Your task to perform on an android device: search for starred emails in the gmail app Image 0: 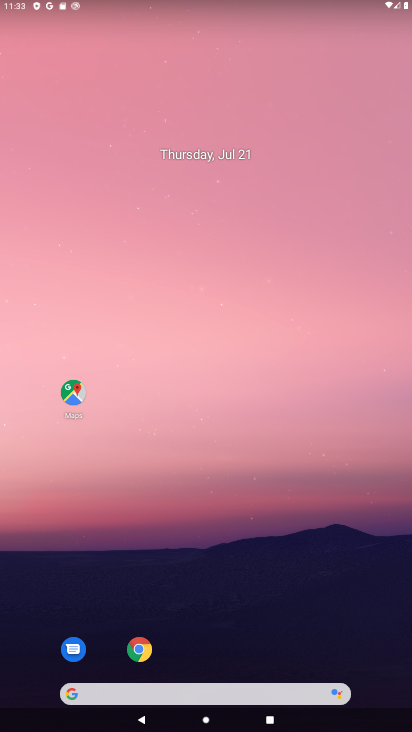
Step 0: drag from (275, 586) to (87, 111)
Your task to perform on an android device: search for starred emails in the gmail app Image 1: 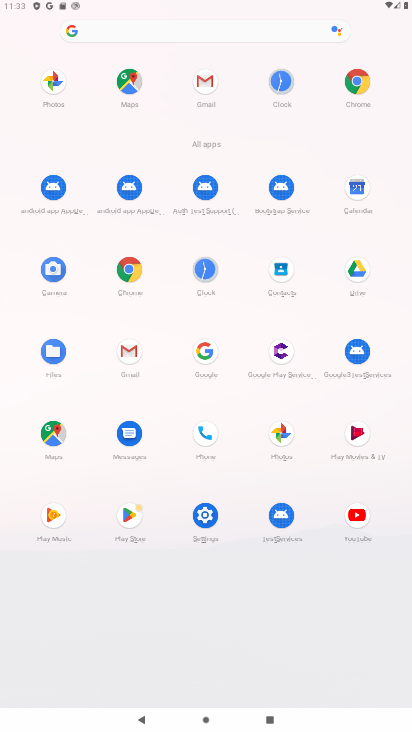
Step 1: click (214, 77)
Your task to perform on an android device: search for starred emails in the gmail app Image 2: 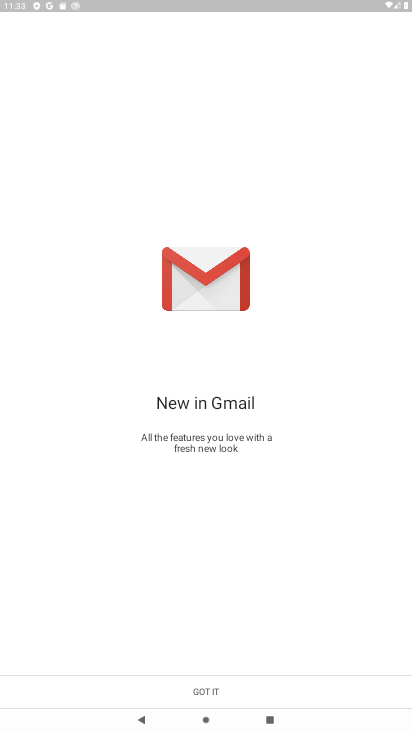
Step 2: click (243, 680)
Your task to perform on an android device: search for starred emails in the gmail app Image 3: 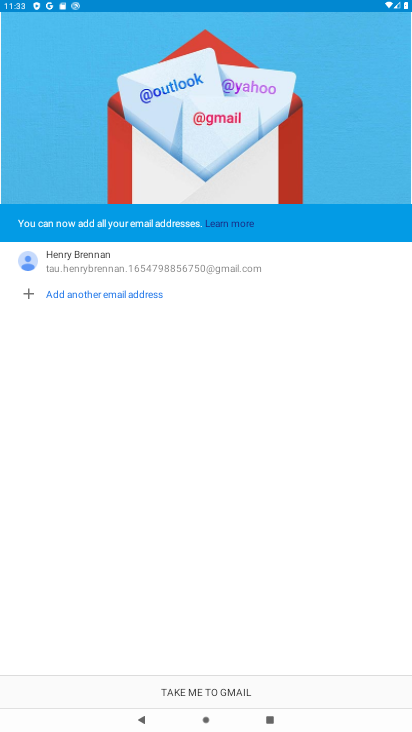
Step 3: click (194, 692)
Your task to perform on an android device: search for starred emails in the gmail app Image 4: 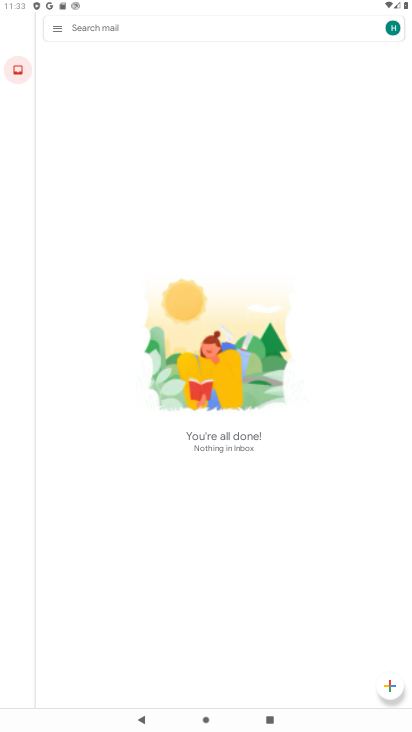
Step 4: click (59, 28)
Your task to perform on an android device: search for starred emails in the gmail app Image 5: 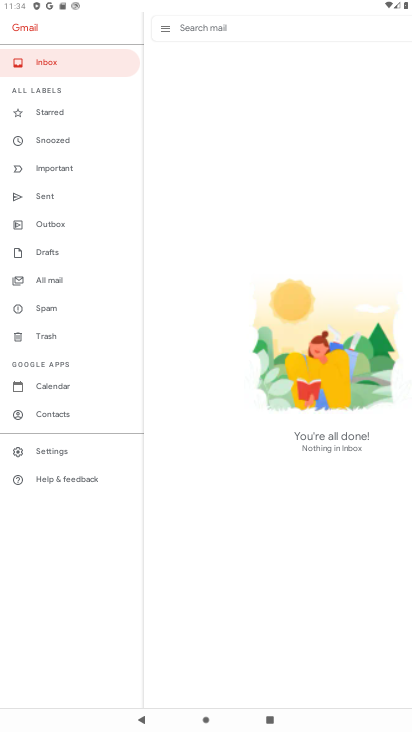
Step 5: click (57, 108)
Your task to perform on an android device: search for starred emails in the gmail app Image 6: 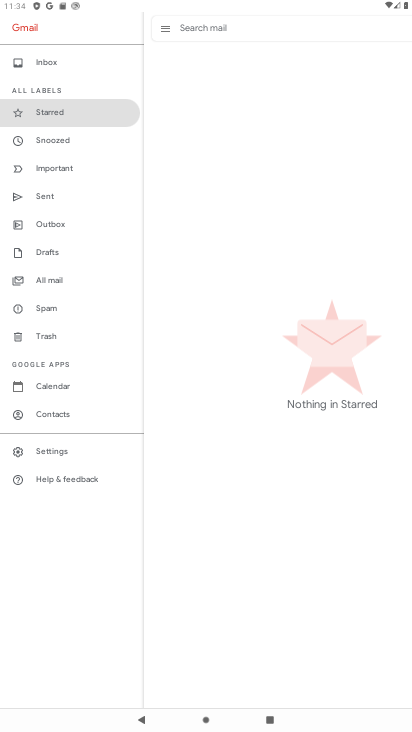
Step 6: task complete